Your task to perform on an android device: Search for "The Dispatcher" by John Scalzi on Goodreads Image 0: 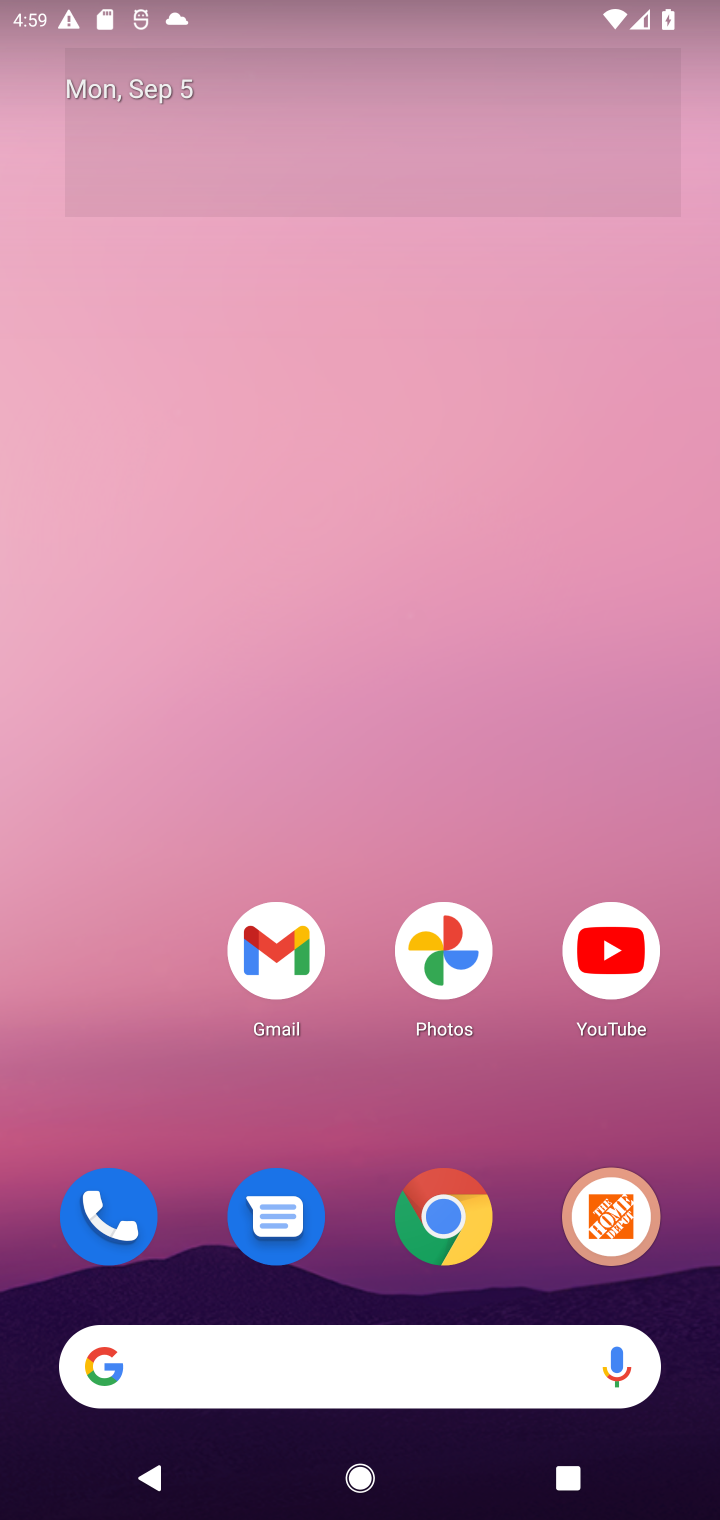
Step 0: press home button
Your task to perform on an android device: Search for "The Dispatcher" by John Scalzi on Goodreads Image 1: 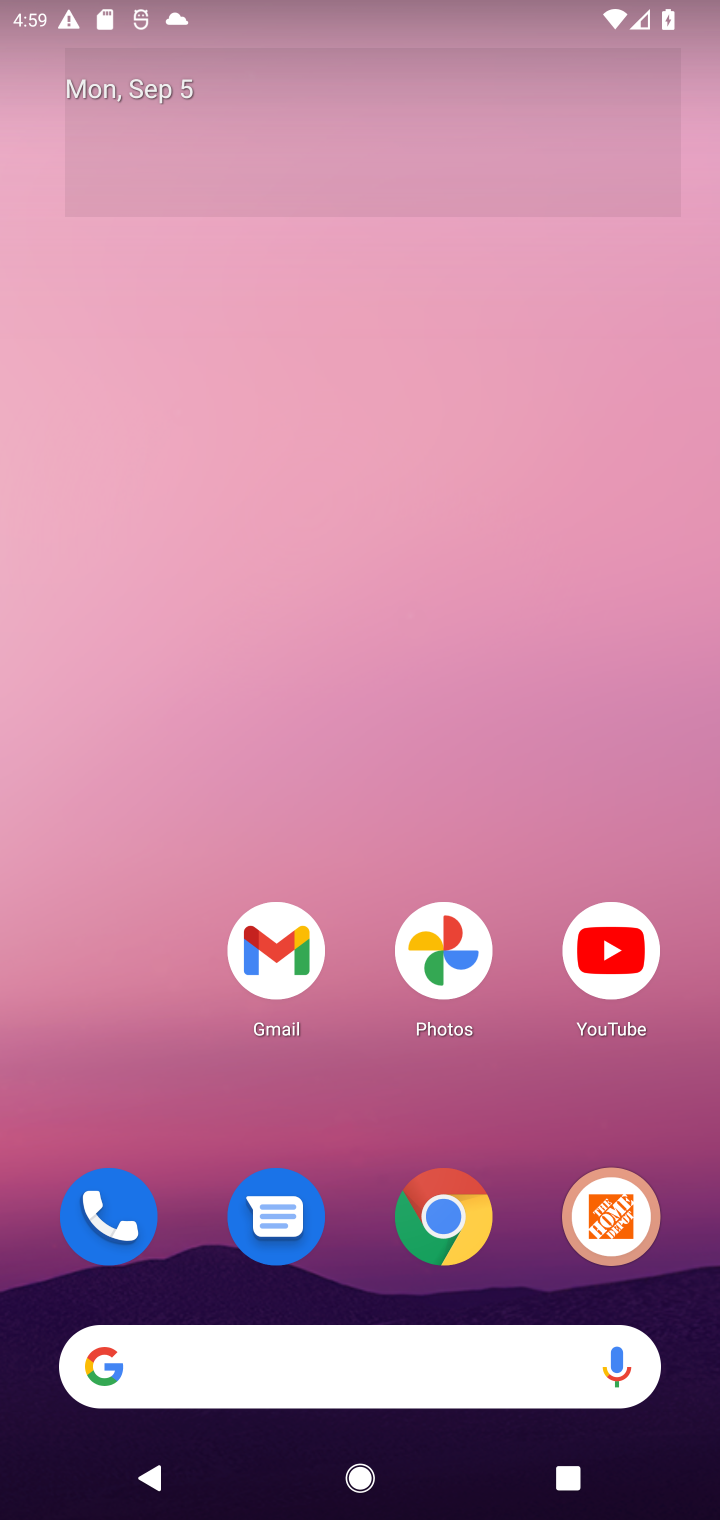
Step 1: click (87, 1369)
Your task to perform on an android device: Search for "The Dispatcher" by John Scalzi on Goodreads Image 2: 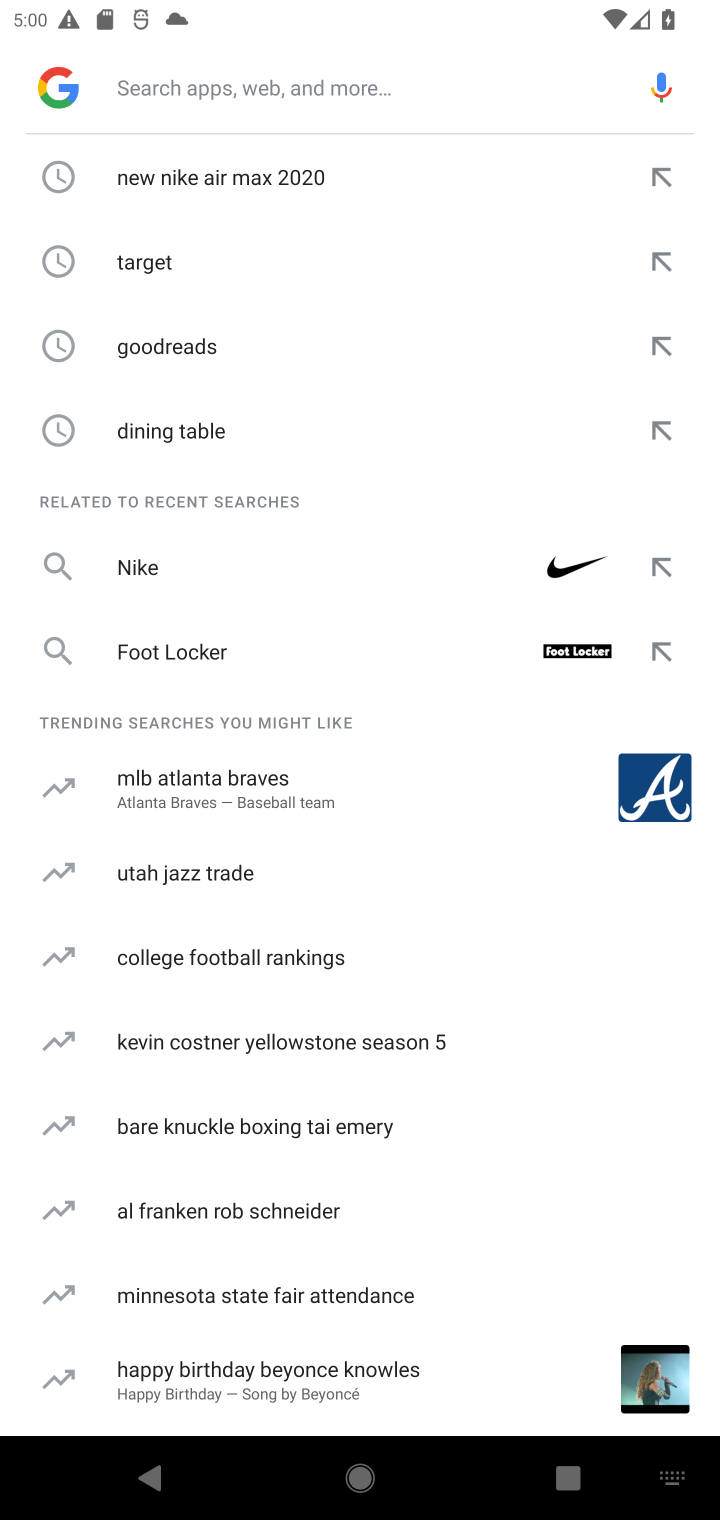
Step 2: type "Goodreads"
Your task to perform on an android device: Search for "The Dispatcher" by John Scalzi on Goodreads Image 3: 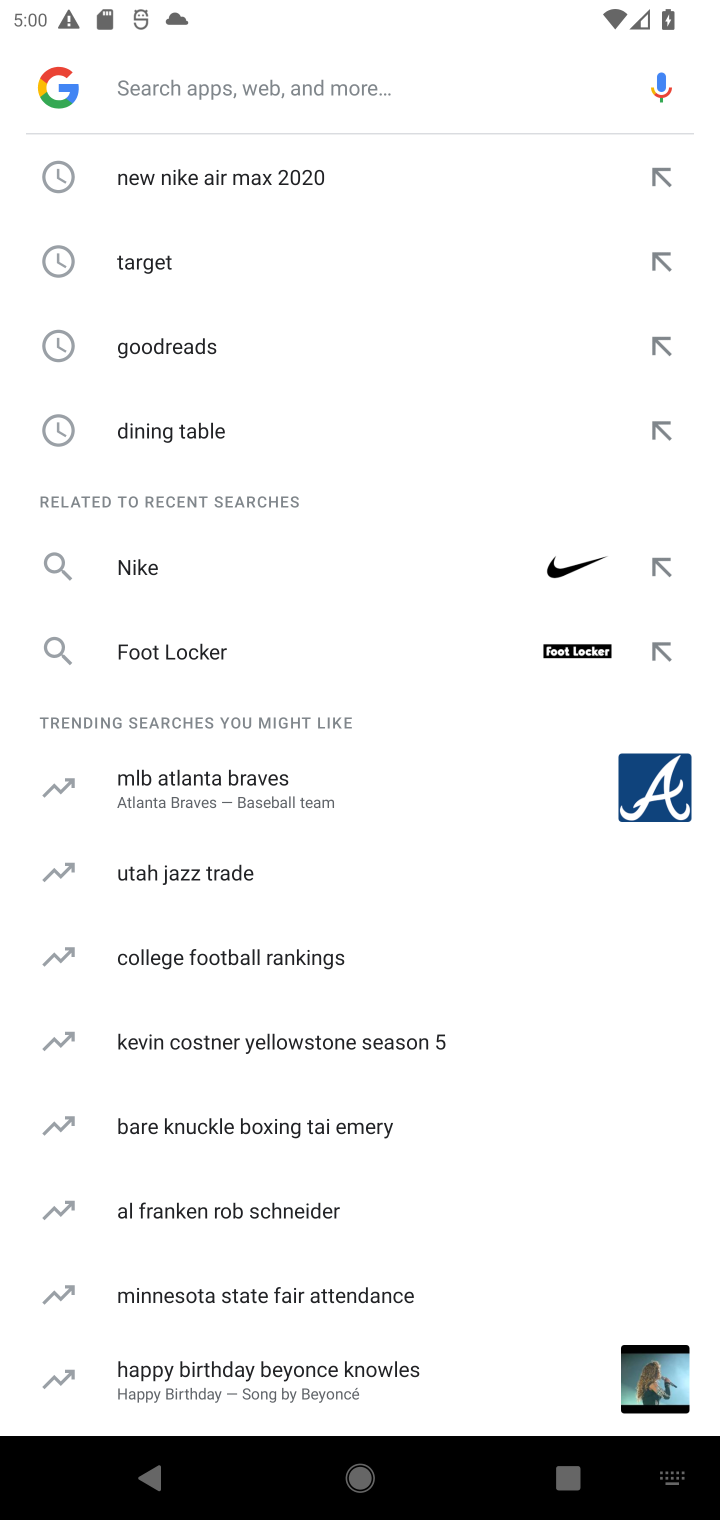
Step 3: click (256, 77)
Your task to perform on an android device: Search for "The Dispatcher" by John Scalzi on Goodreads Image 4: 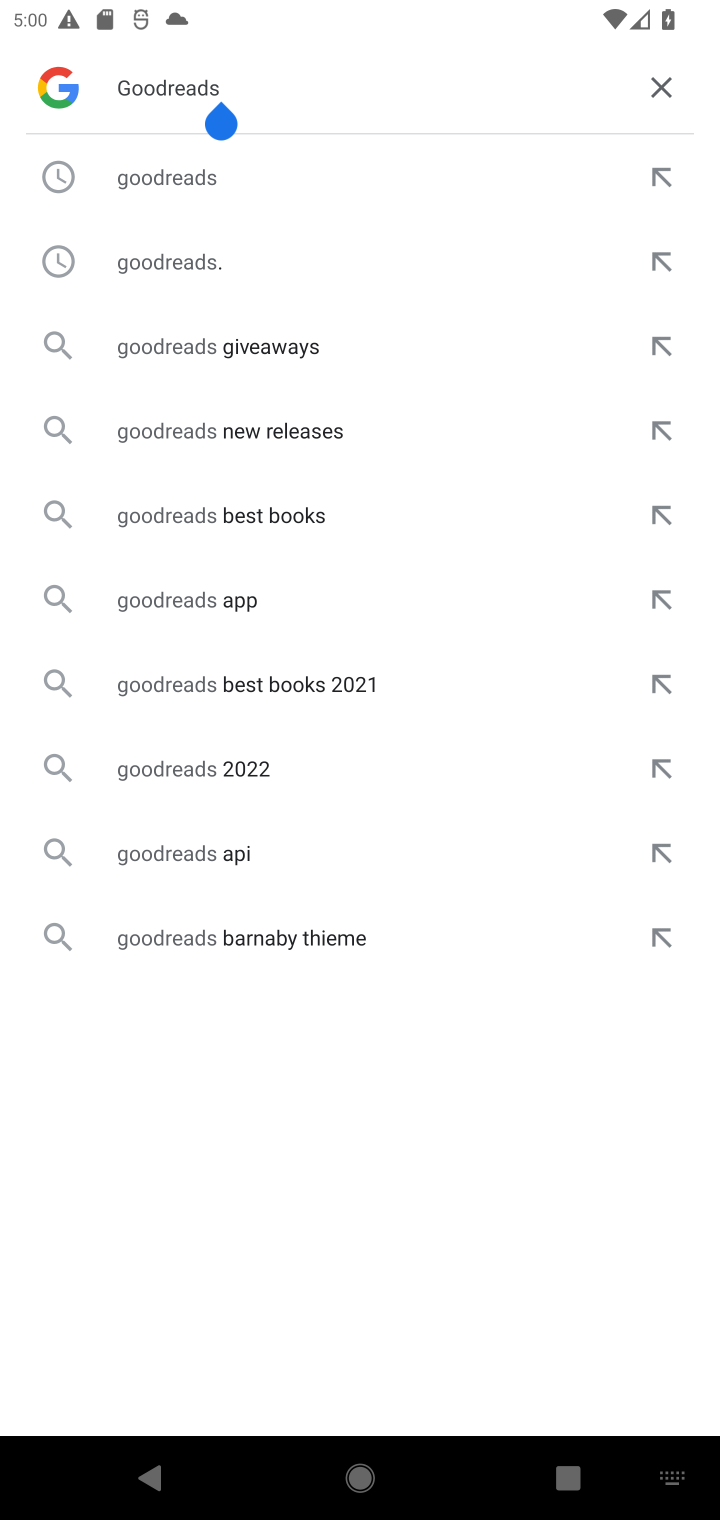
Step 4: press enter
Your task to perform on an android device: Search for "The Dispatcher" by John Scalzi on Goodreads Image 5: 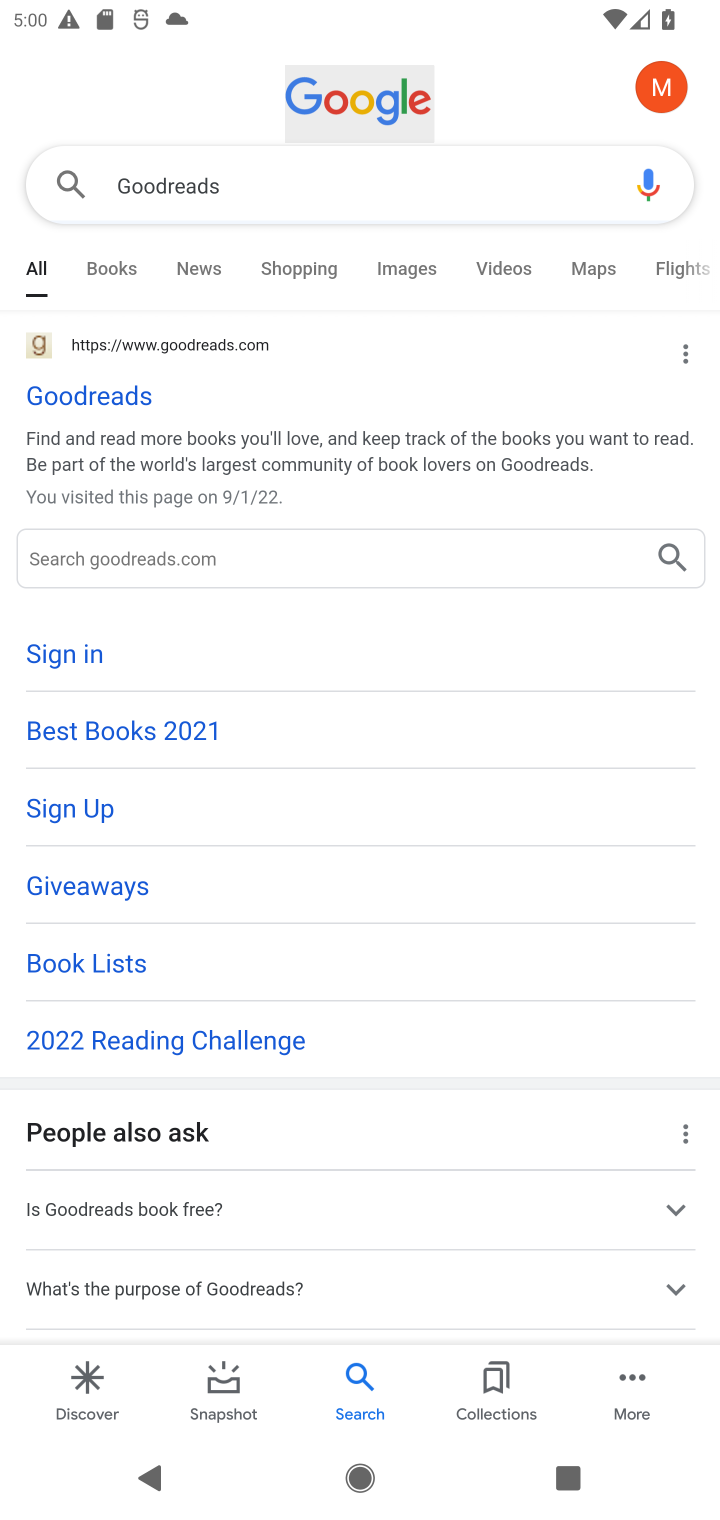
Step 5: click (65, 395)
Your task to perform on an android device: Search for "The Dispatcher" by John Scalzi on Goodreads Image 6: 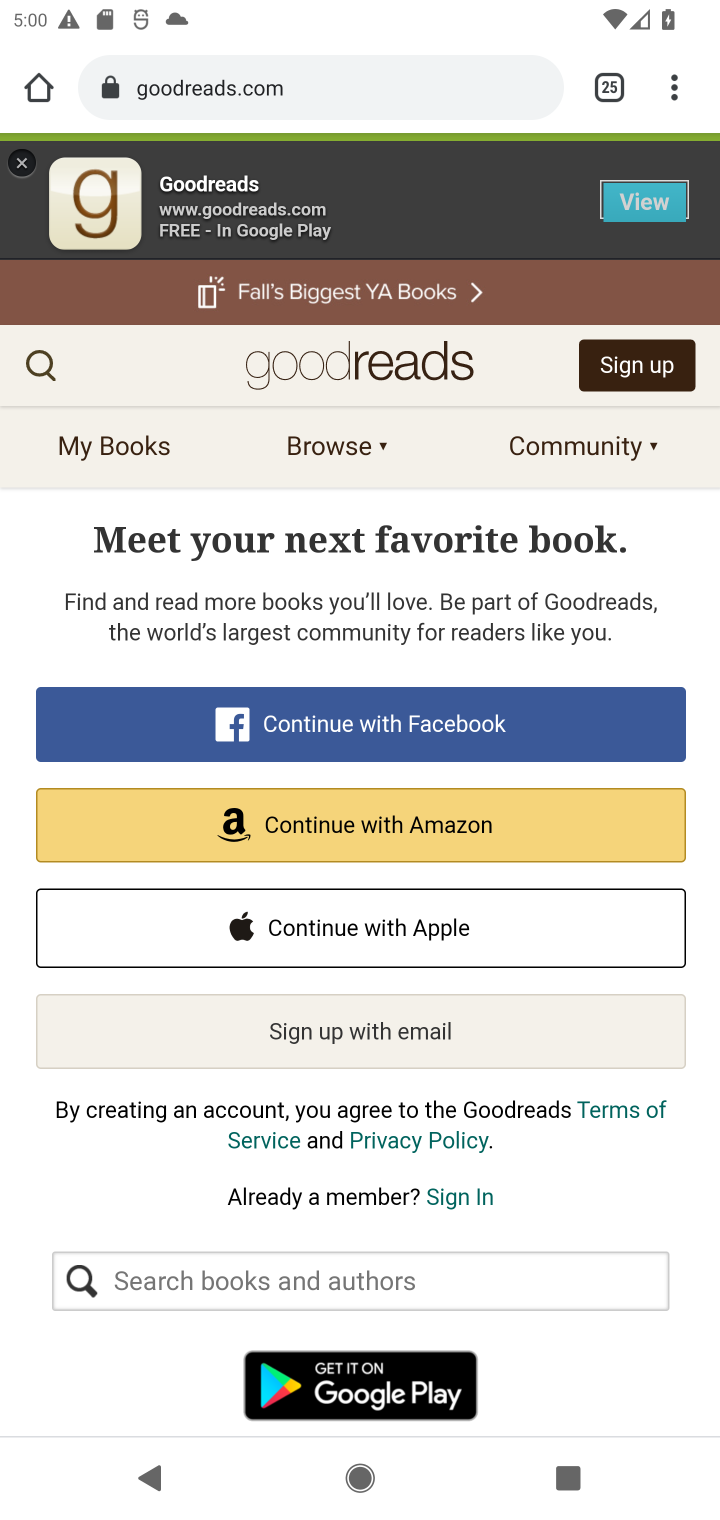
Step 6: click (27, 368)
Your task to perform on an android device: Search for "The Dispatcher" by John Scalzi on Goodreads Image 7: 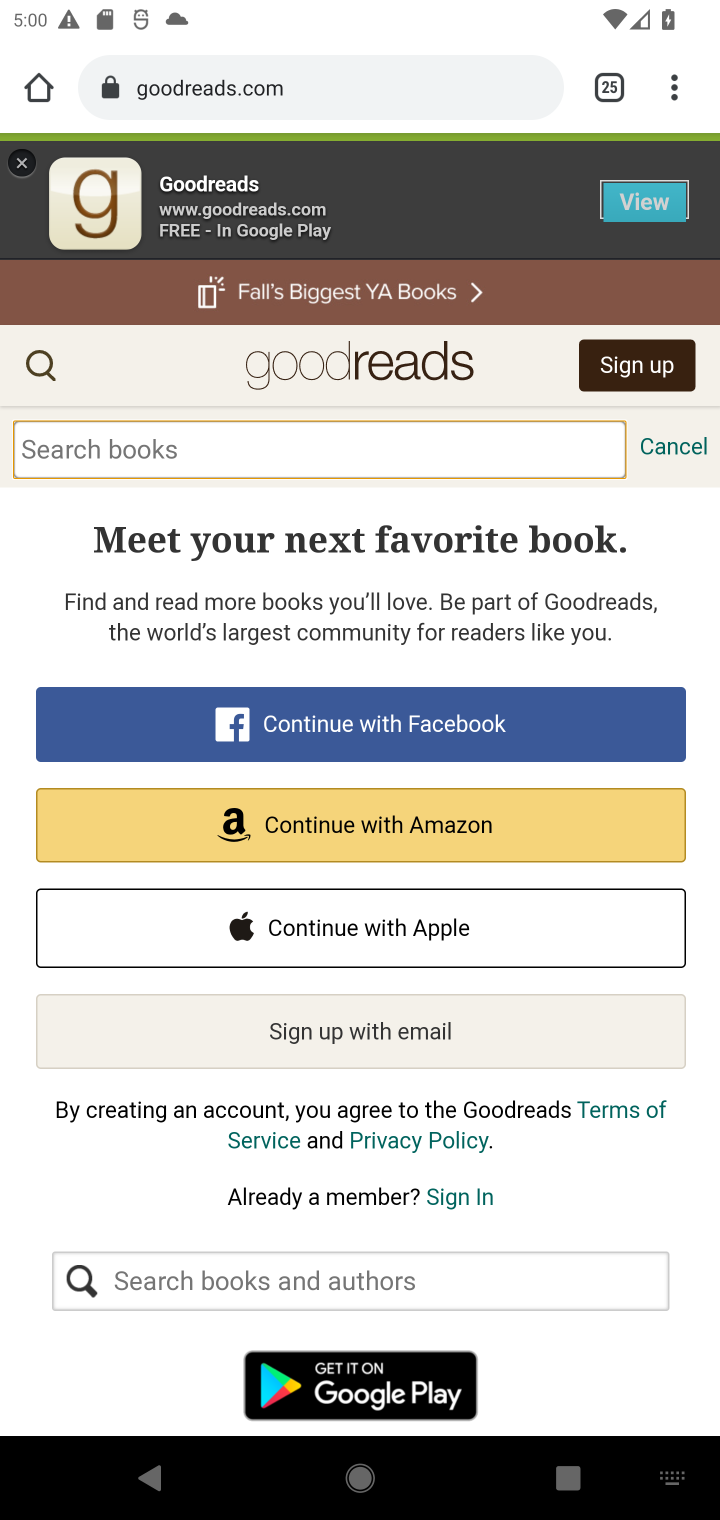
Step 7: type "The Dispatcher"
Your task to perform on an android device: Search for "The Dispatcher" by John Scalzi on Goodreads Image 8: 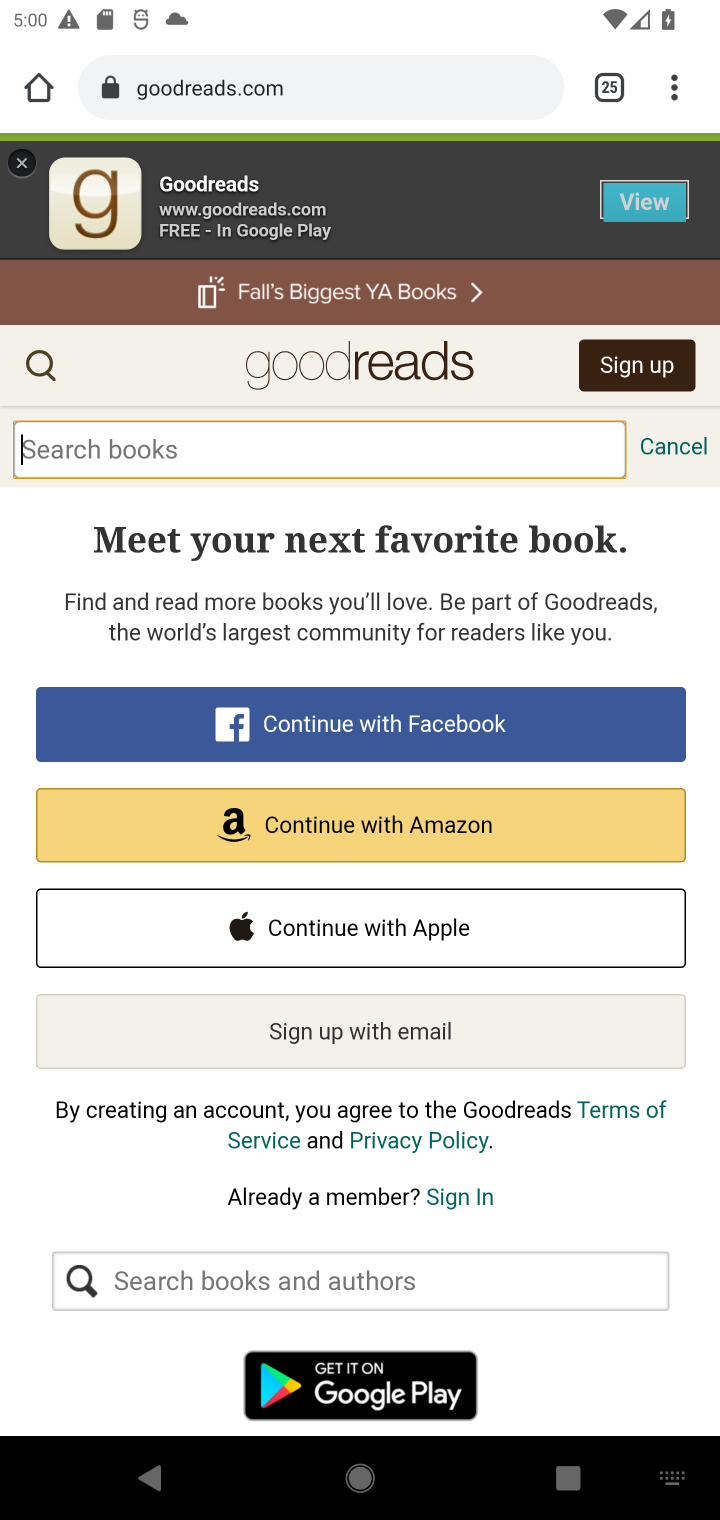
Step 8: click (122, 438)
Your task to perform on an android device: Search for "The Dispatcher" by John Scalzi on Goodreads Image 9: 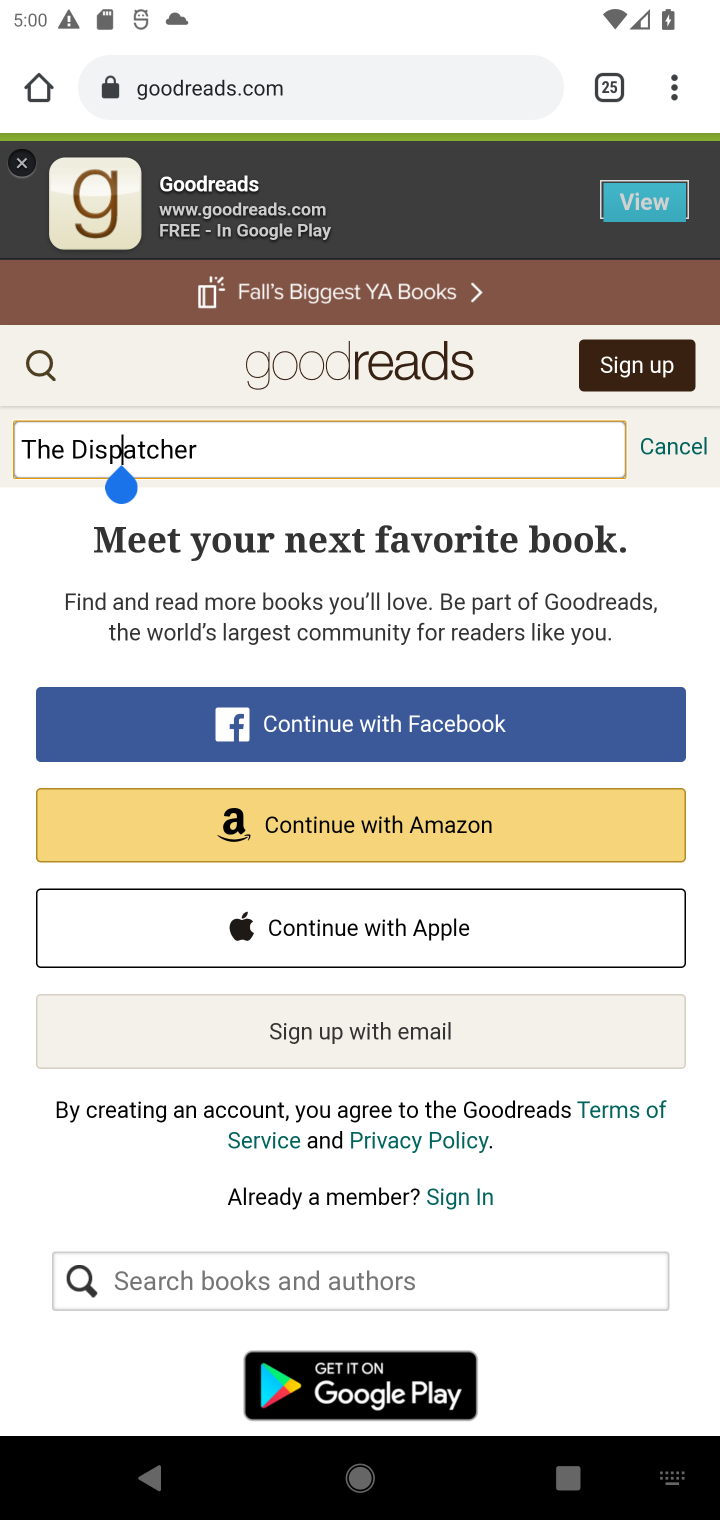
Step 9: press enter
Your task to perform on an android device: Search for "The Dispatcher" by John Scalzi on Goodreads Image 10: 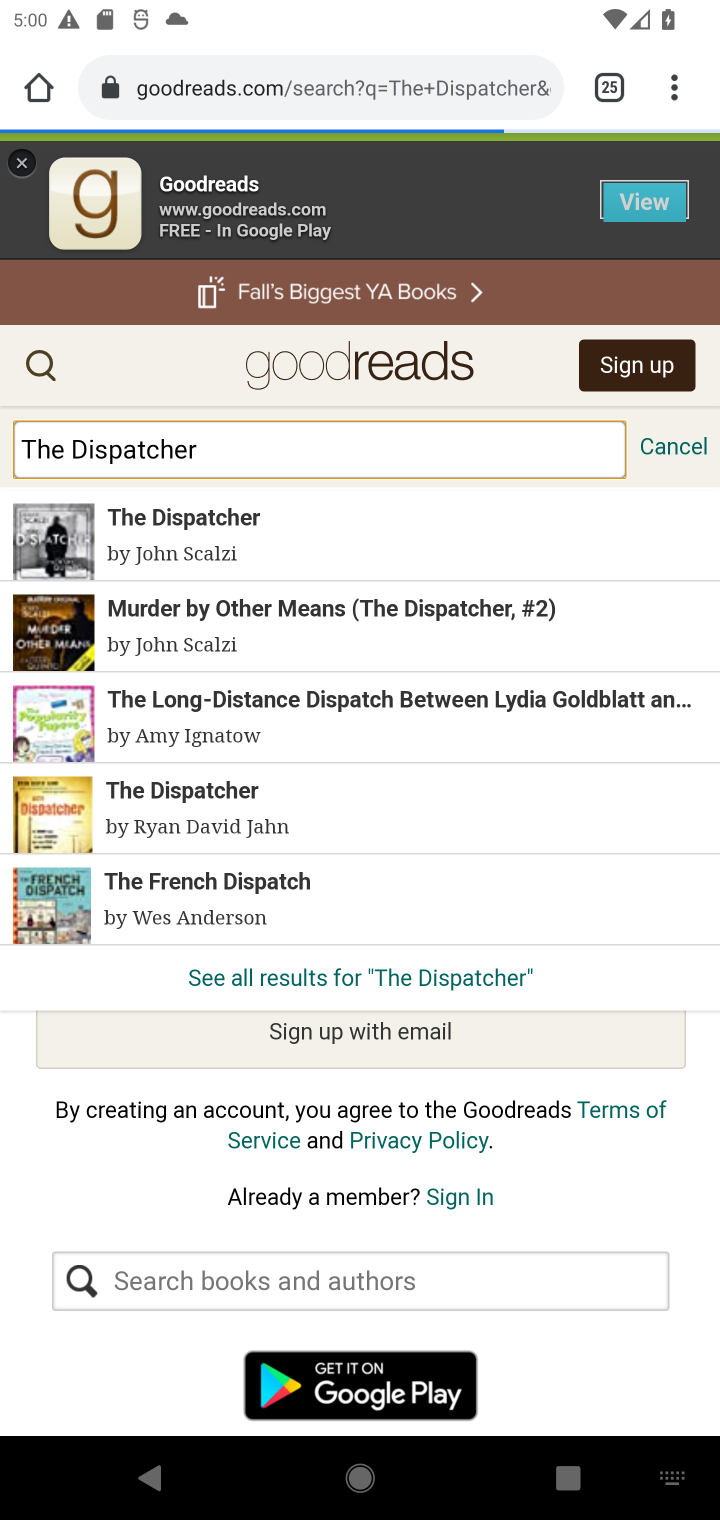
Step 10: click (162, 530)
Your task to perform on an android device: Search for "The Dispatcher" by John Scalzi on Goodreads Image 11: 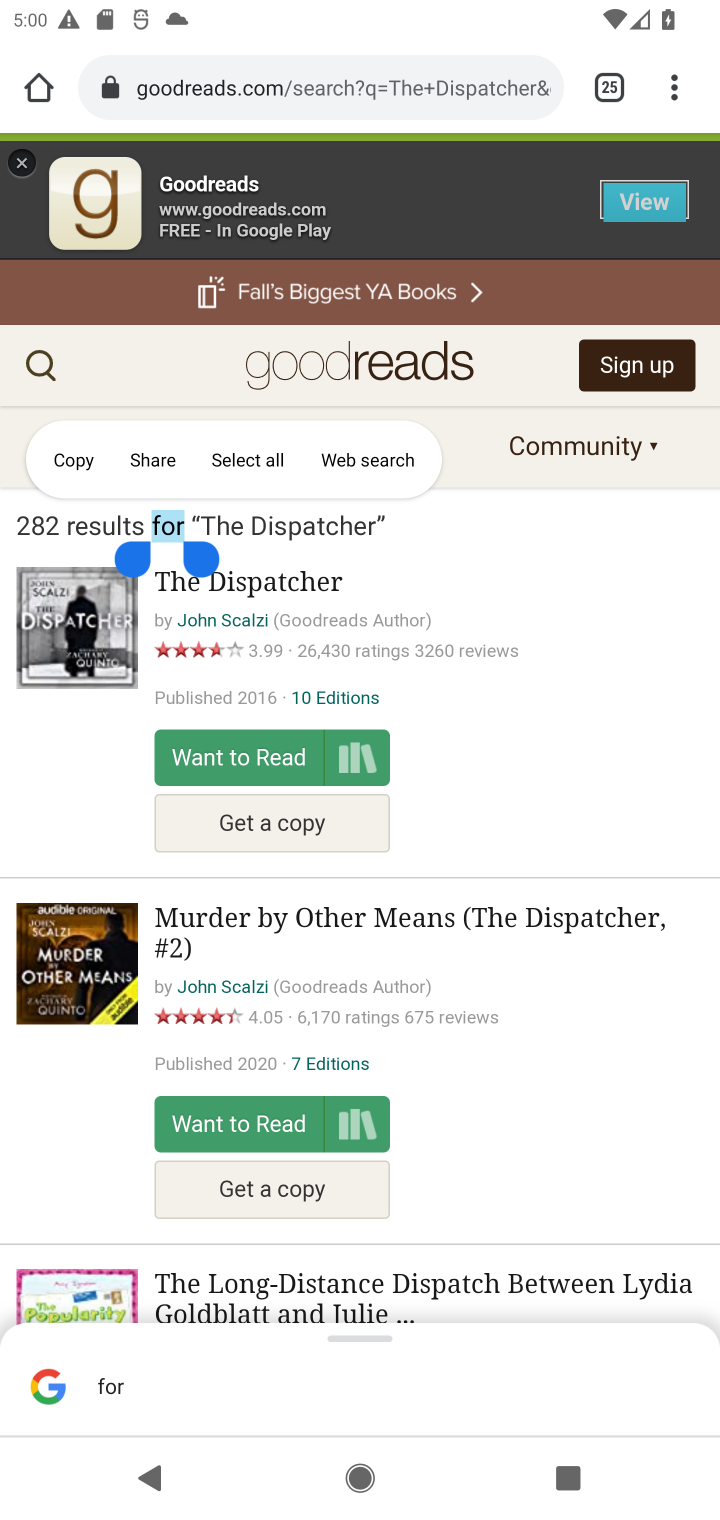
Step 11: task complete